Your task to perform on an android device: Open Google Chrome and click the shortcut for Amazon.com Image 0: 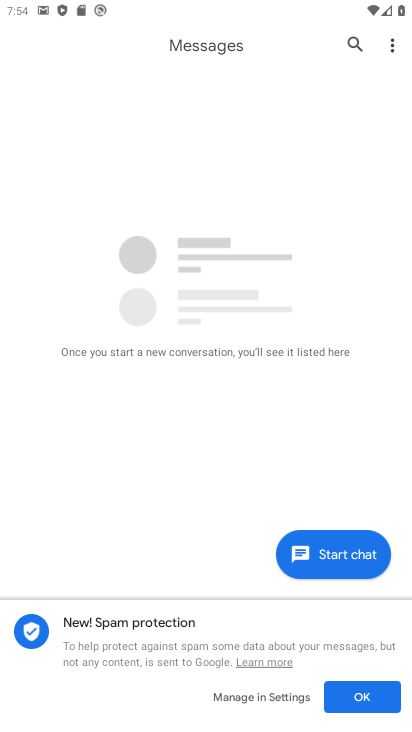
Step 0: press home button
Your task to perform on an android device: Open Google Chrome and click the shortcut for Amazon.com Image 1: 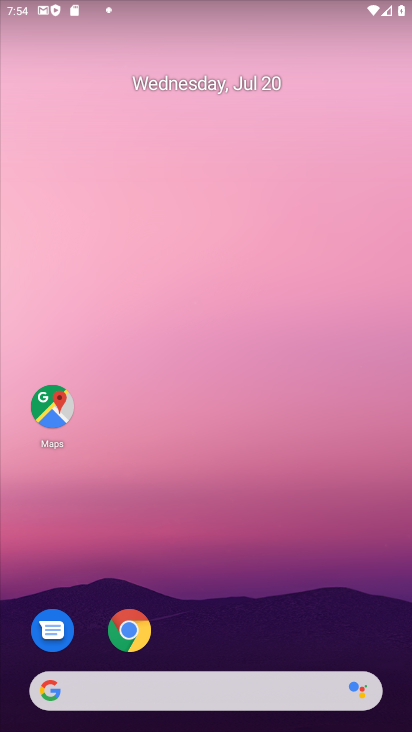
Step 1: click (133, 633)
Your task to perform on an android device: Open Google Chrome and click the shortcut for Amazon.com Image 2: 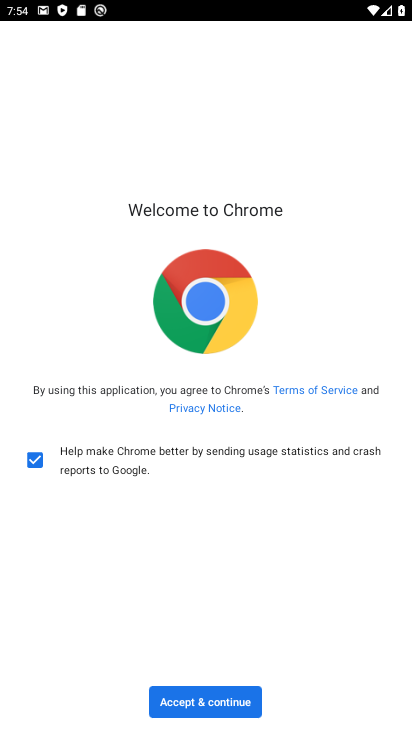
Step 2: click (229, 705)
Your task to perform on an android device: Open Google Chrome and click the shortcut for Amazon.com Image 3: 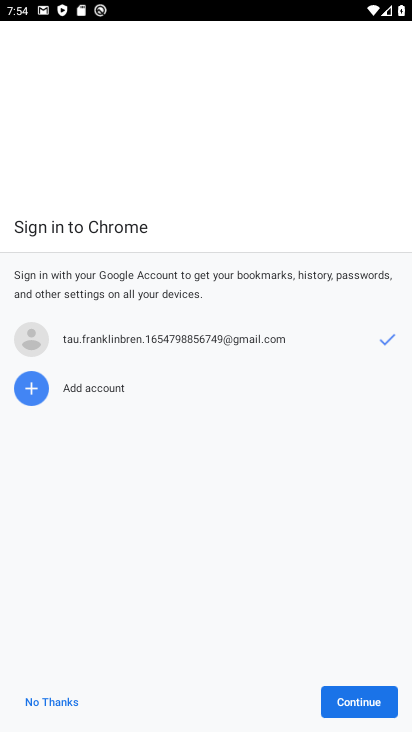
Step 3: click (228, 705)
Your task to perform on an android device: Open Google Chrome and click the shortcut for Amazon.com Image 4: 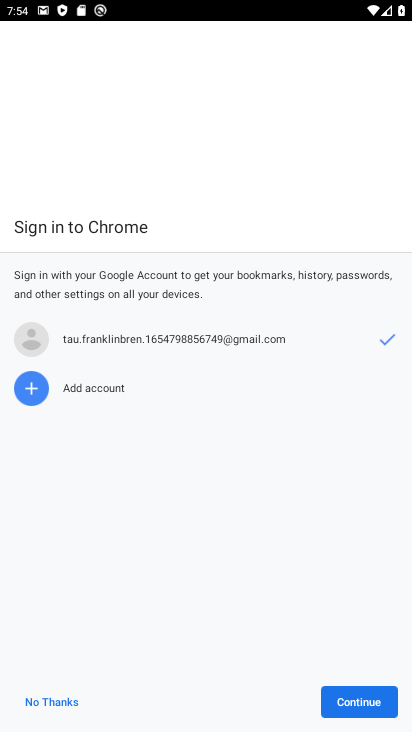
Step 4: click (357, 705)
Your task to perform on an android device: Open Google Chrome and click the shortcut for Amazon.com Image 5: 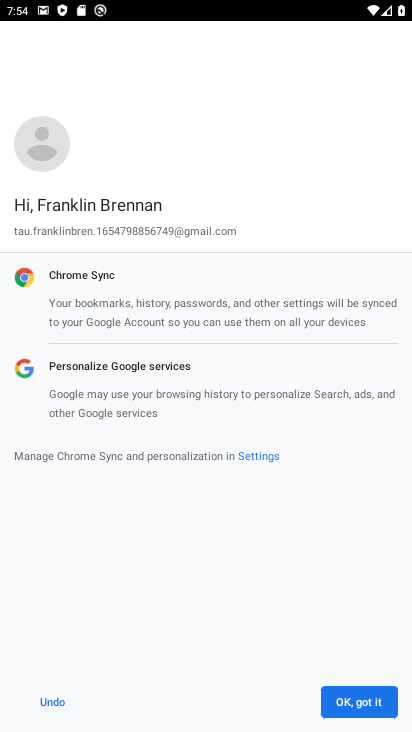
Step 5: click (356, 704)
Your task to perform on an android device: Open Google Chrome and click the shortcut for Amazon.com Image 6: 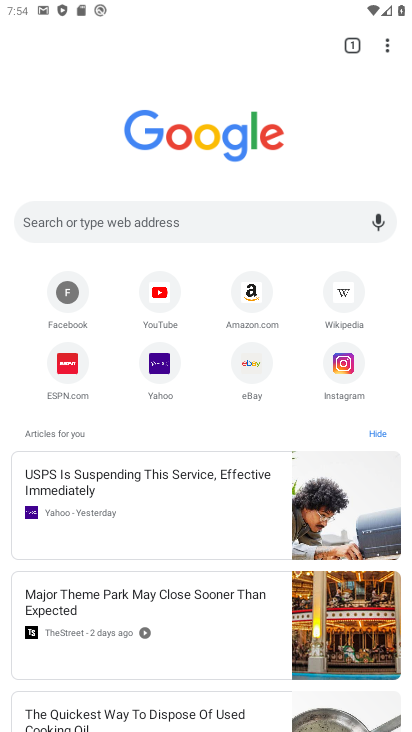
Step 6: click (254, 296)
Your task to perform on an android device: Open Google Chrome and click the shortcut for Amazon.com Image 7: 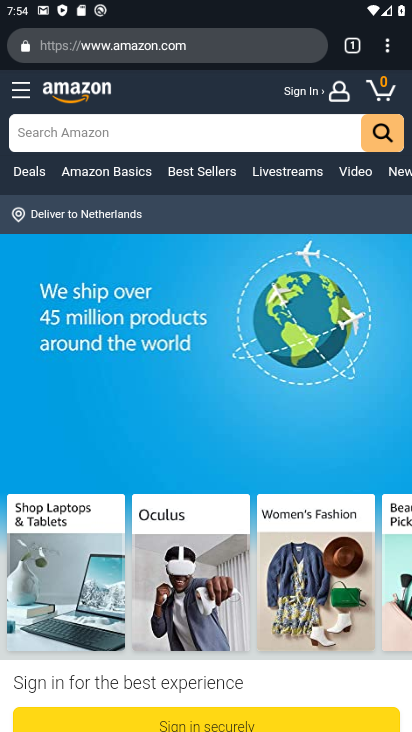
Step 7: task complete